Your task to perform on an android device: toggle improve location accuracy Image 0: 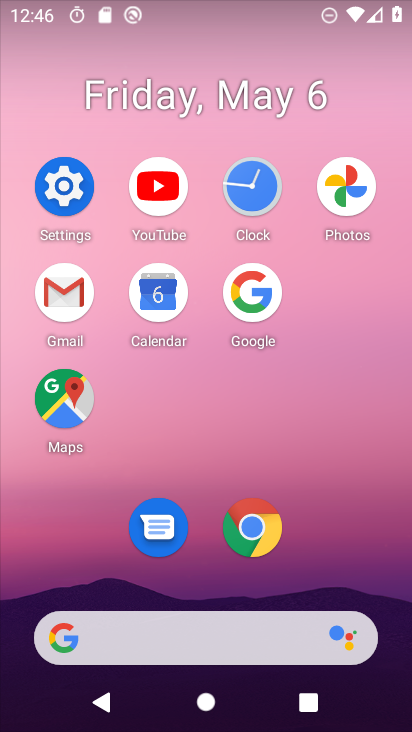
Step 0: click (58, 204)
Your task to perform on an android device: toggle improve location accuracy Image 1: 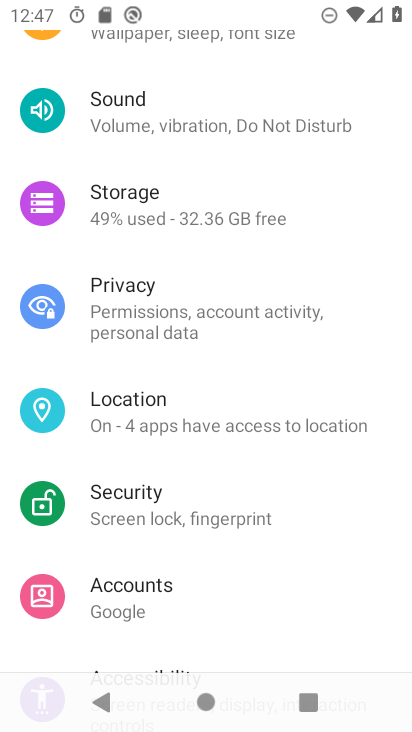
Step 1: drag from (315, 564) to (285, 218)
Your task to perform on an android device: toggle improve location accuracy Image 2: 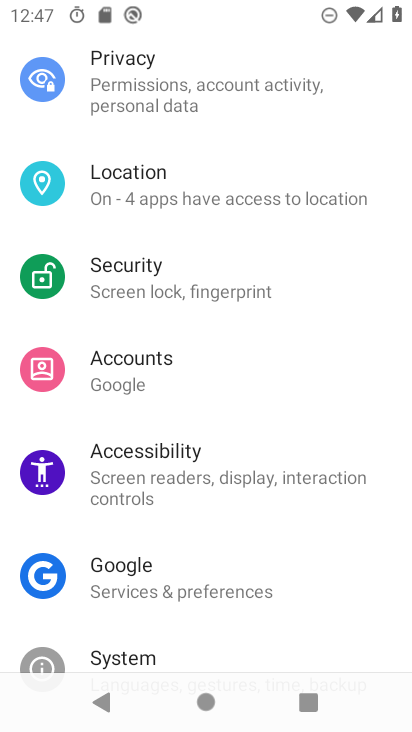
Step 2: click (227, 193)
Your task to perform on an android device: toggle improve location accuracy Image 3: 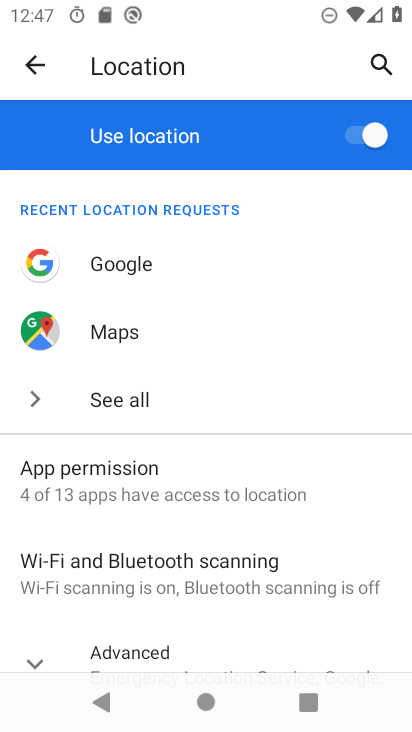
Step 3: click (200, 650)
Your task to perform on an android device: toggle improve location accuracy Image 4: 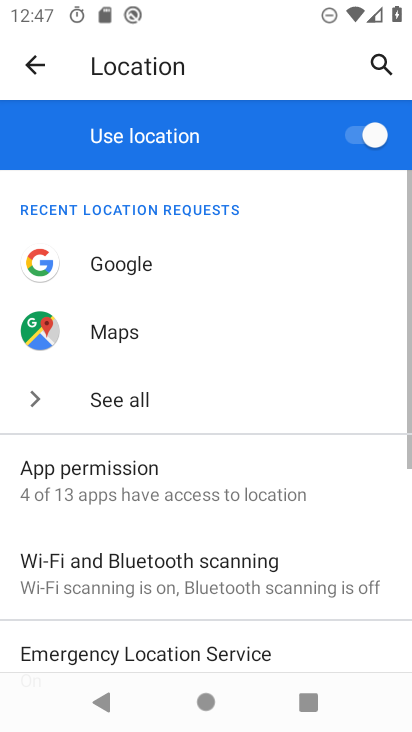
Step 4: drag from (266, 566) to (277, 141)
Your task to perform on an android device: toggle improve location accuracy Image 5: 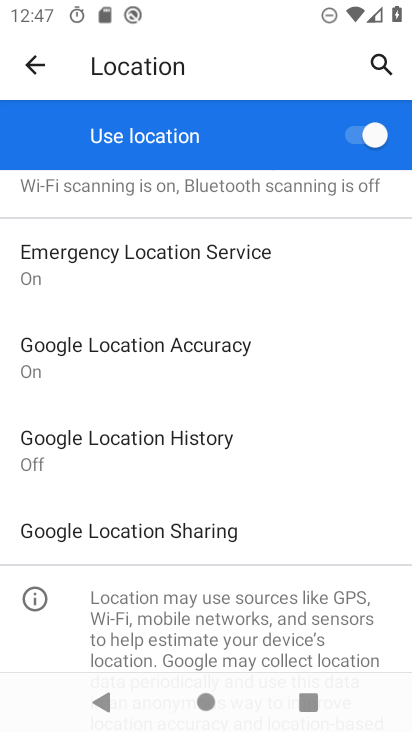
Step 5: click (218, 331)
Your task to perform on an android device: toggle improve location accuracy Image 6: 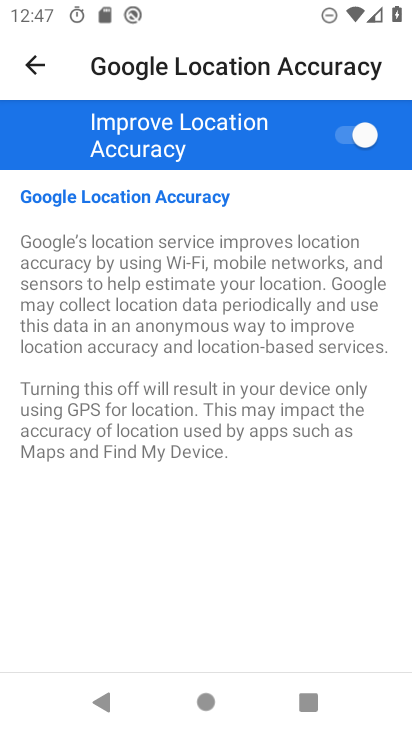
Step 6: click (363, 139)
Your task to perform on an android device: toggle improve location accuracy Image 7: 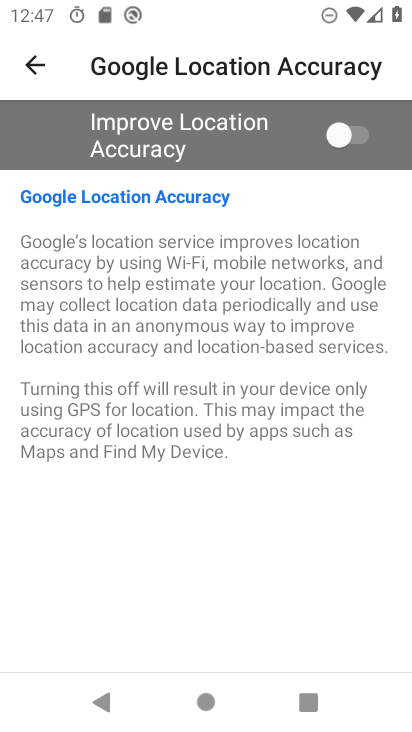
Step 7: click (342, 145)
Your task to perform on an android device: toggle improve location accuracy Image 8: 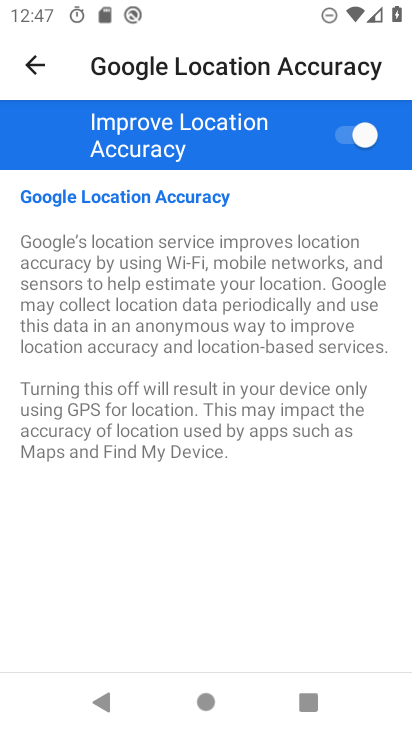
Step 8: click (359, 134)
Your task to perform on an android device: toggle improve location accuracy Image 9: 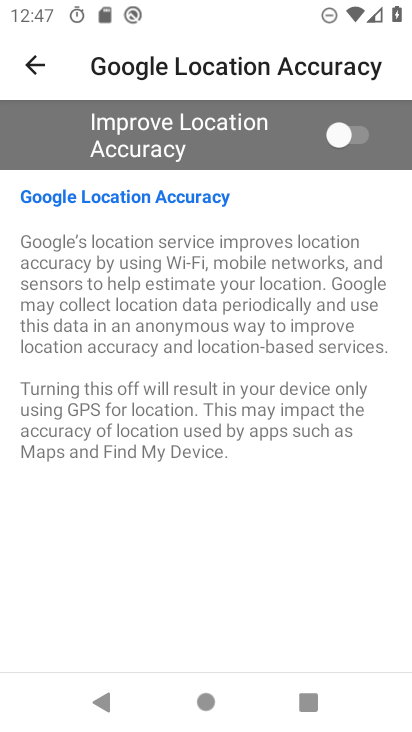
Step 9: task complete